Your task to perform on an android device: change timer sound Image 0: 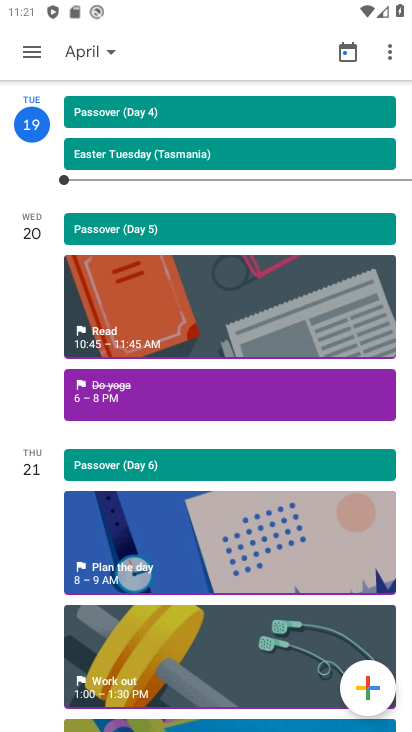
Step 0: press home button
Your task to perform on an android device: change timer sound Image 1: 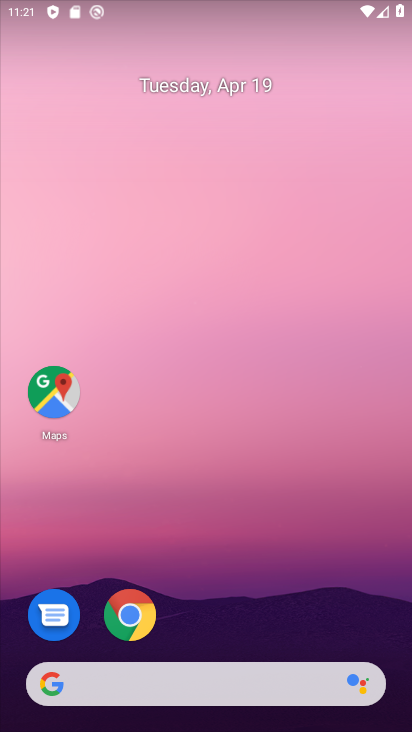
Step 1: drag from (241, 541) to (218, 128)
Your task to perform on an android device: change timer sound Image 2: 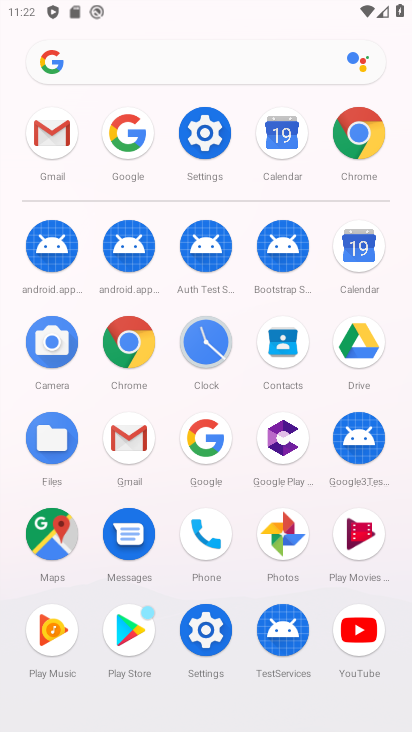
Step 2: click (213, 342)
Your task to perform on an android device: change timer sound Image 3: 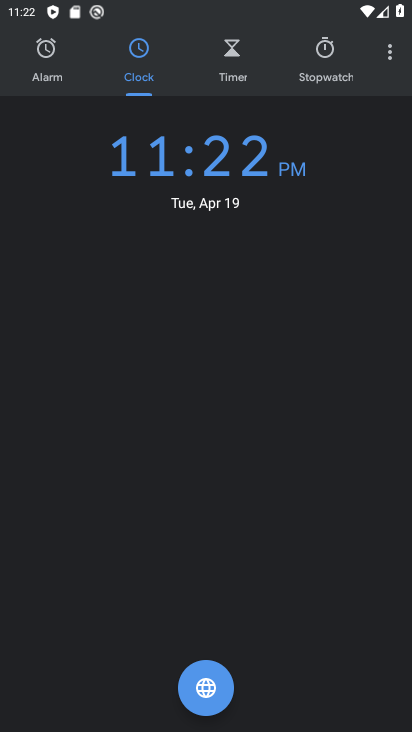
Step 3: click (388, 52)
Your task to perform on an android device: change timer sound Image 4: 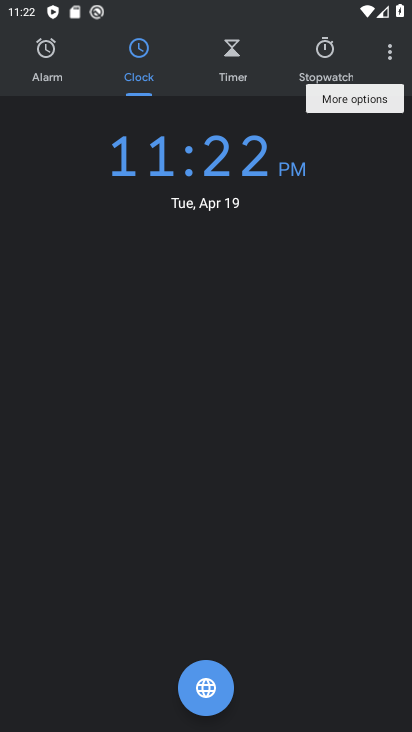
Step 4: click (385, 49)
Your task to perform on an android device: change timer sound Image 5: 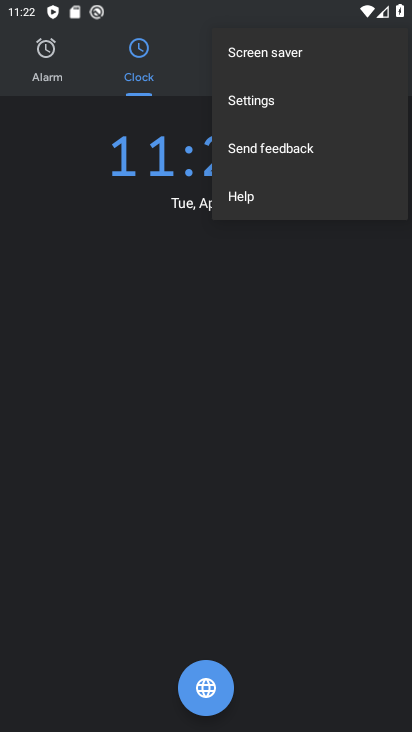
Step 5: click (271, 106)
Your task to perform on an android device: change timer sound Image 6: 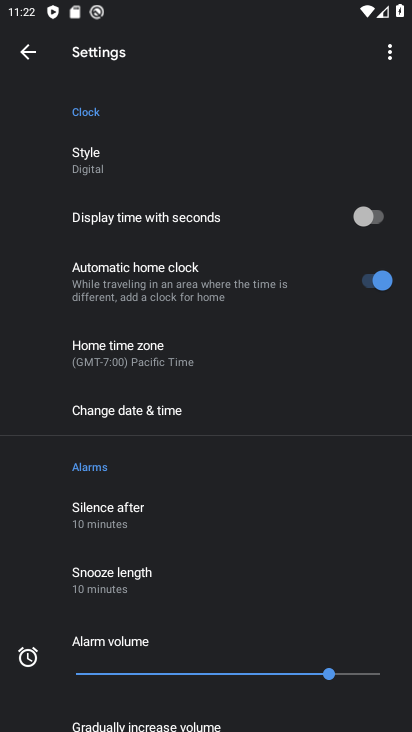
Step 6: drag from (228, 623) to (188, 218)
Your task to perform on an android device: change timer sound Image 7: 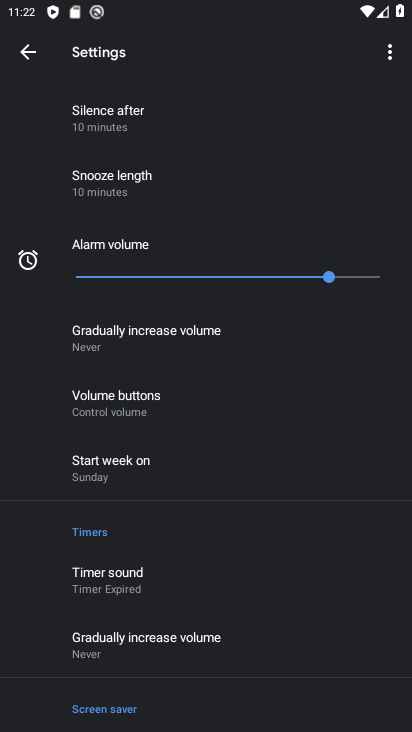
Step 7: click (131, 577)
Your task to perform on an android device: change timer sound Image 8: 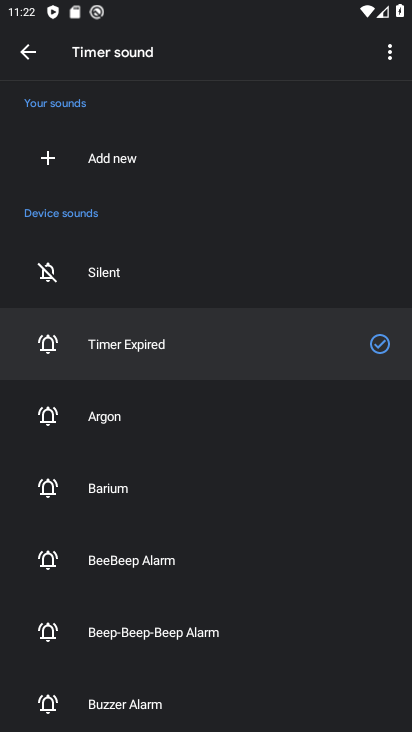
Step 8: click (130, 429)
Your task to perform on an android device: change timer sound Image 9: 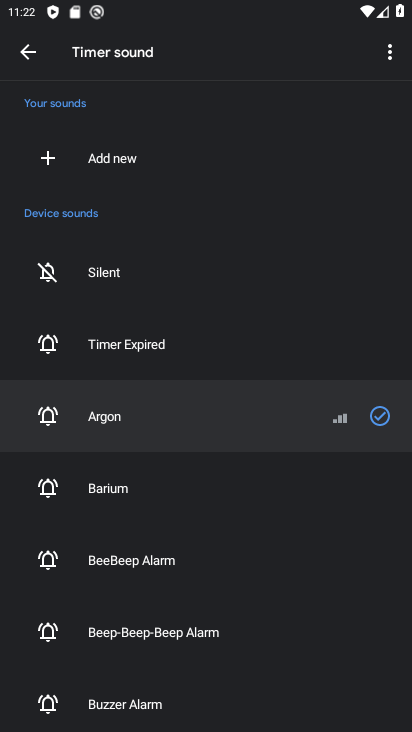
Step 9: task complete